Your task to perform on an android device: Go to calendar. Show me events next week Image 0: 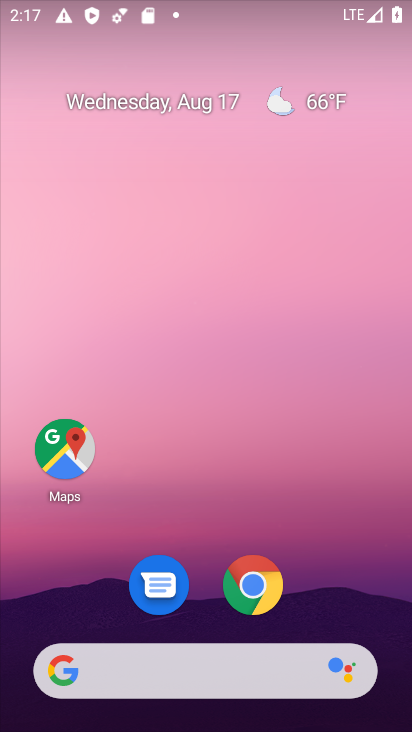
Step 0: drag from (190, 272) to (207, 0)
Your task to perform on an android device: Go to calendar. Show me events next week Image 1: 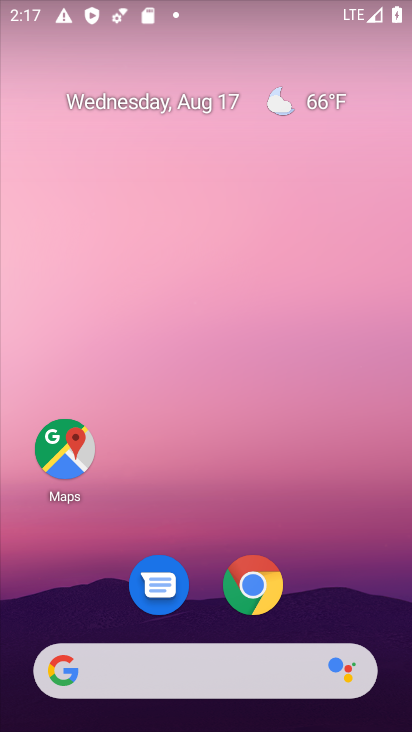
Step 1: drag from (212, 553) to (250, 3)
Your task to perform on an android device: Go to calendar. Show me events next week Image 2: 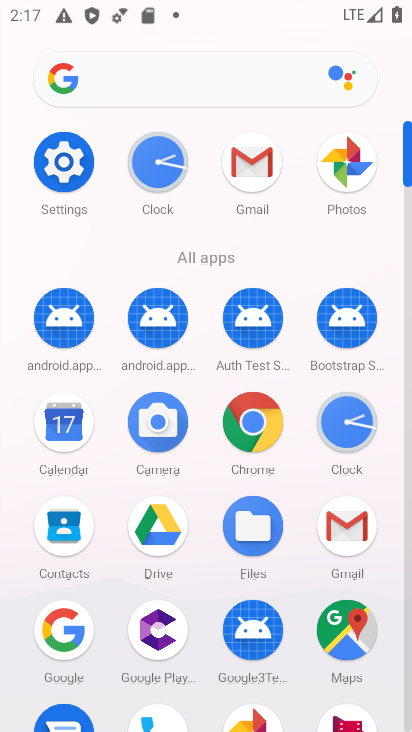
Step 2: click (66, 416)
Your task to perform on an android device: Go to calendar. Show me events next week Image 3: 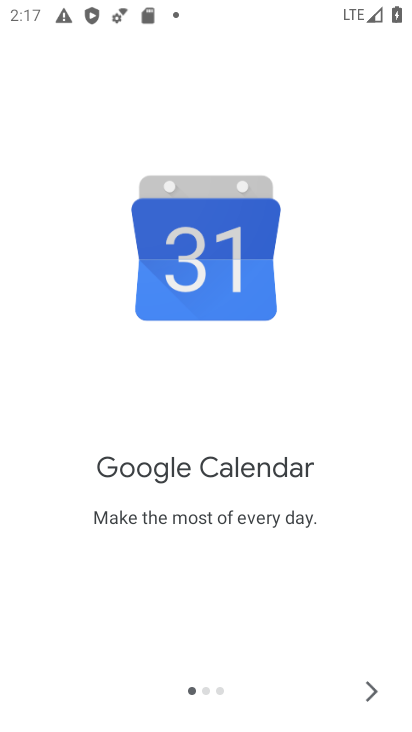
Step 3: click (370, 699)
Your task to perform on an android device: Go to calendar. Show me events next week Image 4: 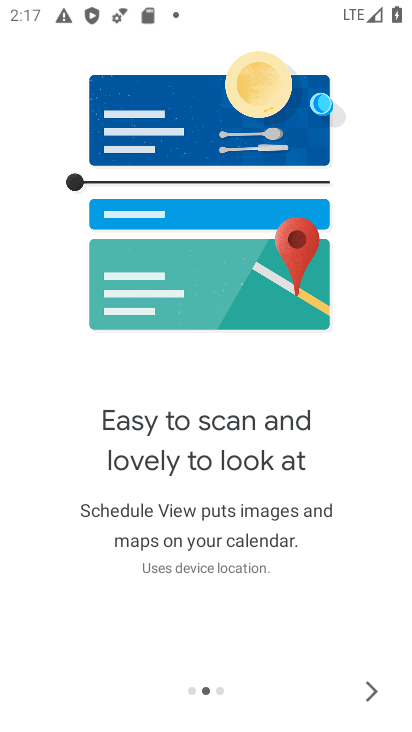
Step 4: click (370, 699)
Your task to perform on an android device: Go to calendar. Show me events next week Image 5: 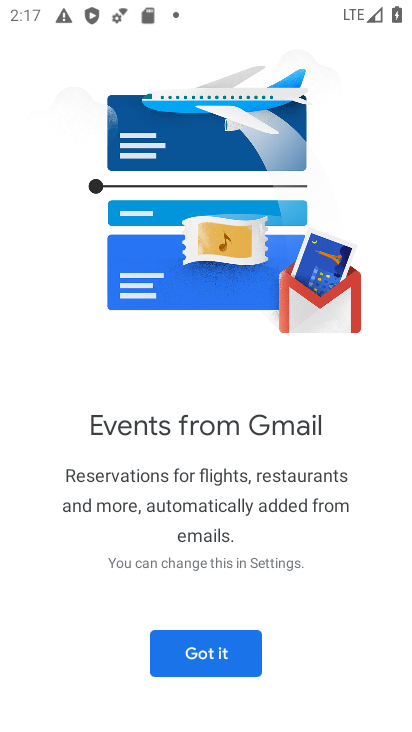
Step 5: click (231, 649)
Your task to perform on an android device: Go to calendar. Show me events next week Image 6: 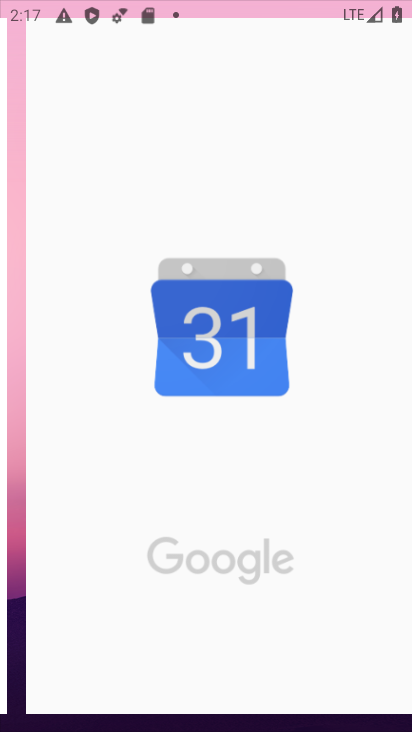
Step 6: click (211, 654)
Your task to perform on an android device: Go to calendar. Show me events next week Image 7: 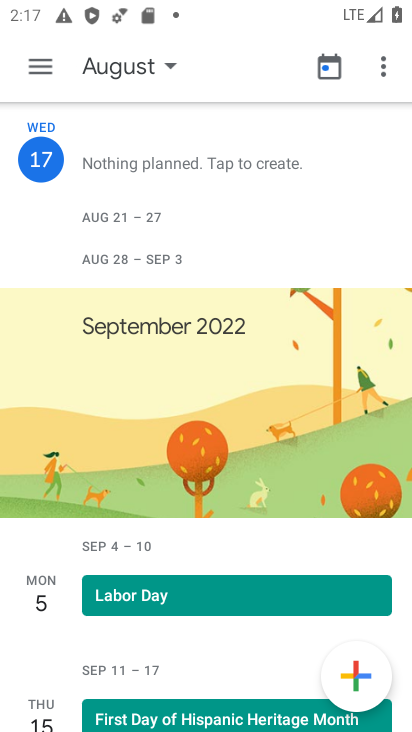
Step 7: click (26, 59)
Your task to perform on an android device: Go to calendar. Show me events next week Image 8: 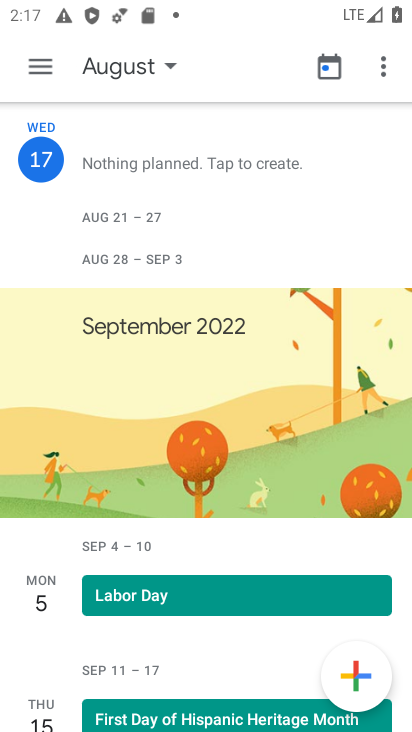
Step 8: click (37, 64)
Your task to perform on an android device: Go to calendar. Show me events next week Image 9: 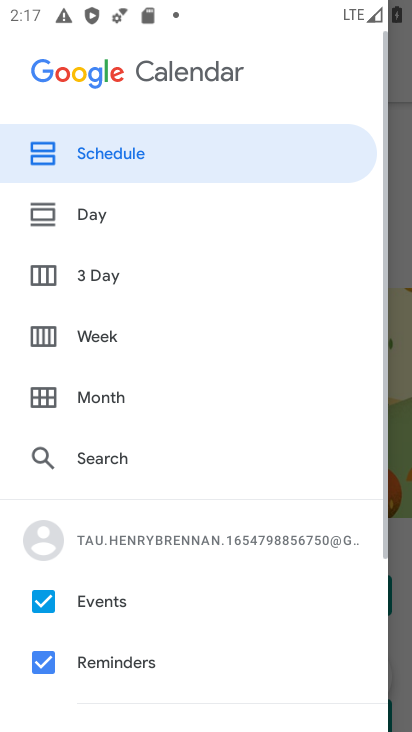
Step 9: click (36, 335)
Your task to perform on an android device: Go to calendar. Show me events next week Image 10: 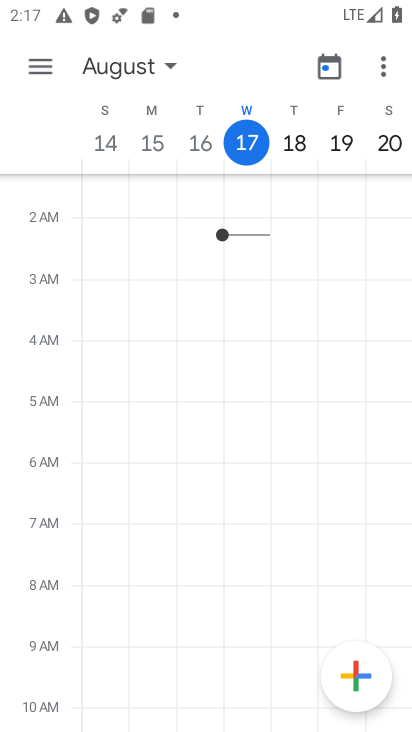
Step 10: click (350, 394)
Your task to perform on an android device: Go to calendar. Show me events next week Image 11: 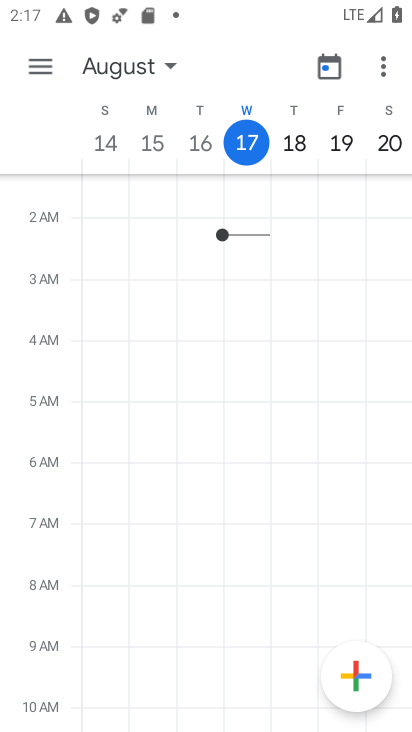
Step 11: task complete